Your task to perform on an android device: turn on sleep mode Image 0: 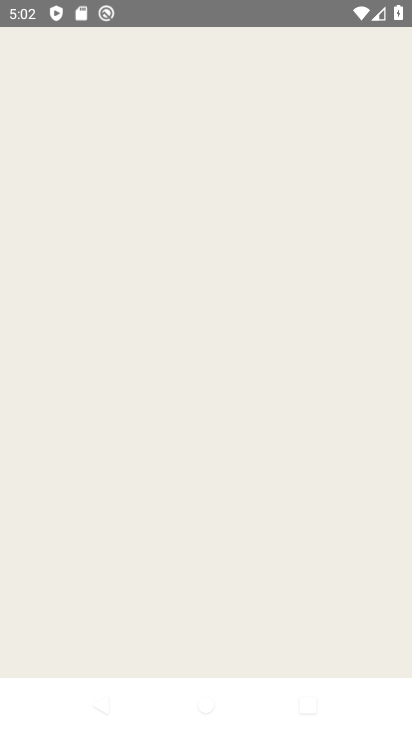
Step 0: click (263, 73)
Your task to perform on an android device: turn on sleep mode Image 1: 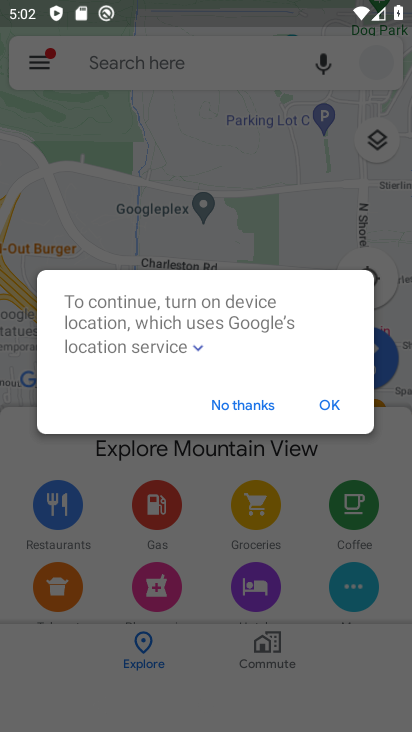
Step 1: press home button
Your task to perform on an android device: turn on sleep mode Image 2: 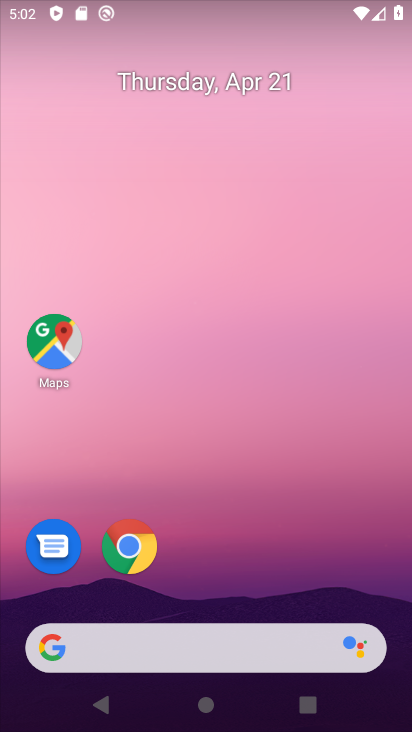
Step 2: drag from (214, 458) to (206, 42)
Your task to perform on an android device: turn on sleep mode Image 3: 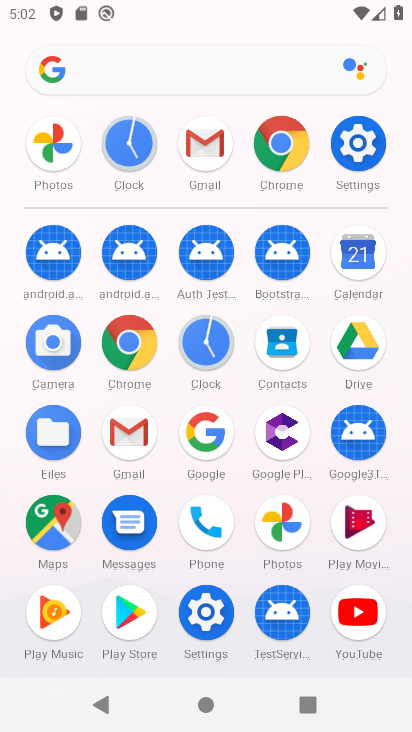
Step 3: click (353, 149)
Your task to perform on an android device: turn on sleep mode Image 4: 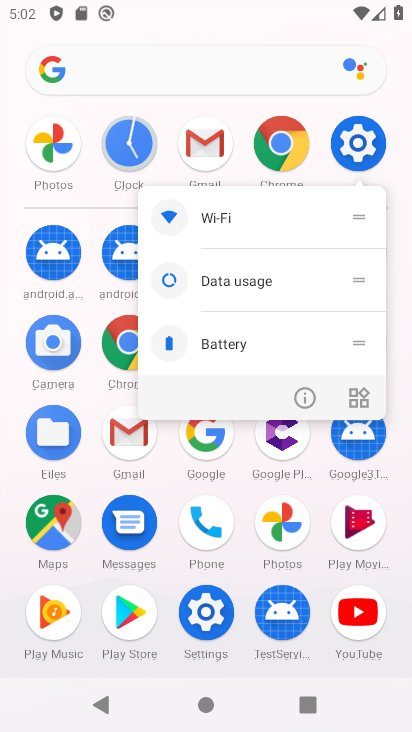
Step 4: click (362, 140)
Your task to perform on an android device: turn on sleep mode Image 5: 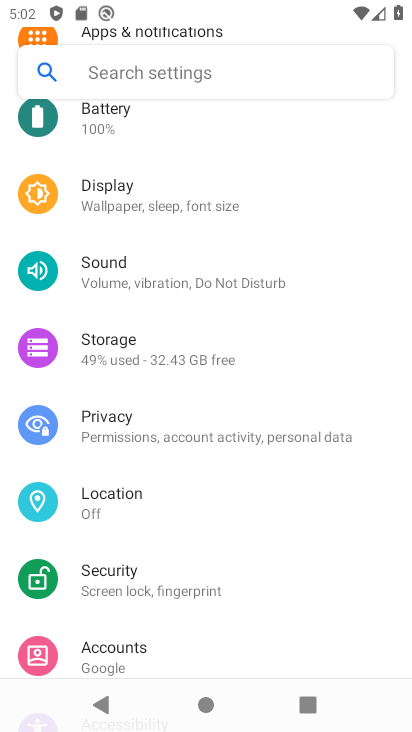
Step 5: click (185, 196)
Your task to perform on an android device: turn on sleep mode Image 6: 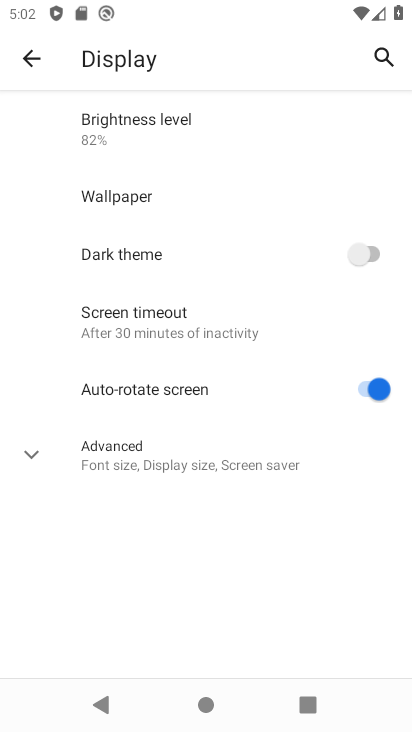
Step 6: click (151, 459)
Your task to perform on an android device: turn on sleep mode Image 7: 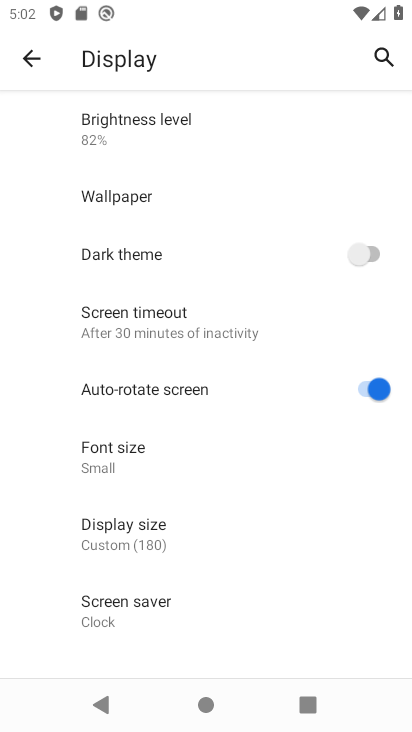
Step 7: task complete